Your task to perform on an android device: see tabs open on other devices in the chrome app Image 0: 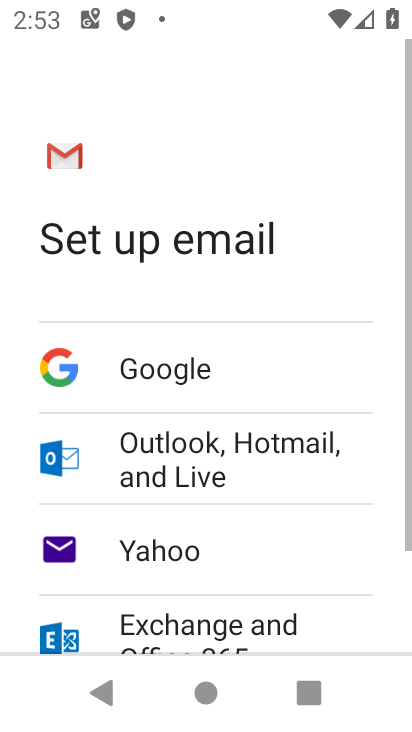
Step 0: press home button
Your task to perform on an android device: see tabs open on other devices in the chrome app Image 1: 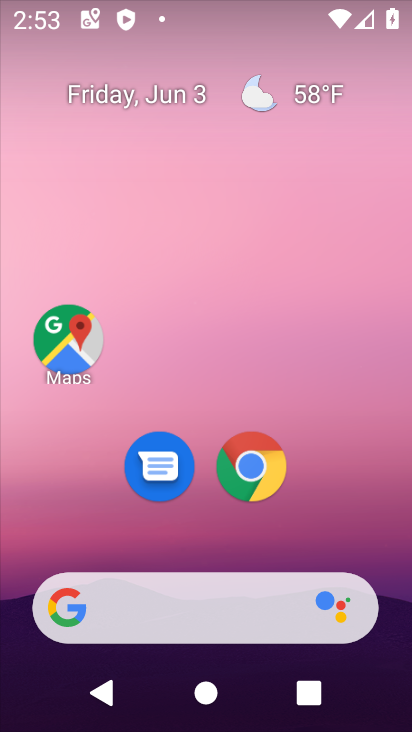
Step 1: click (247, 480)
Your task to perform on an android device: see tabs open on other devices in the chrome app Image 2: 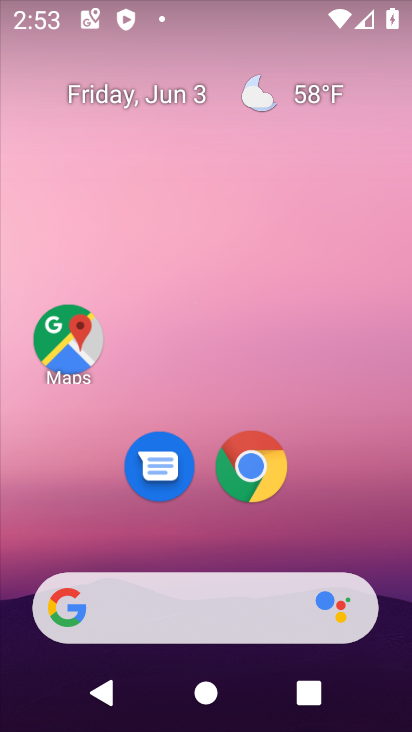
Step 2: click (247, 485)
Your task to perform on an android device: see tabs open on other devices in the chrome app Image 3: 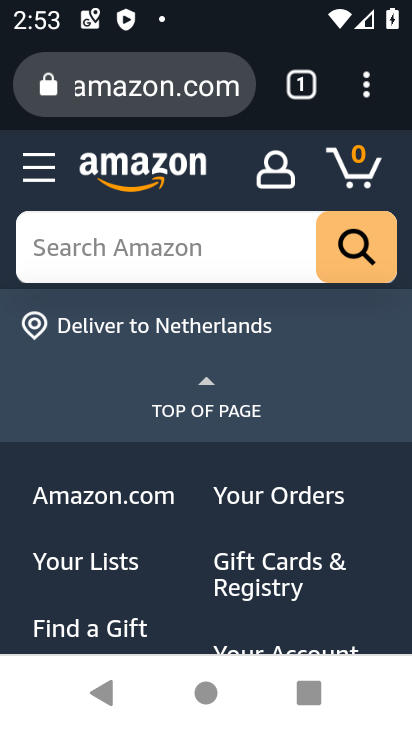
Step 3: task complete